Your task to perform on an android device: empty trash in google photos Image 0: 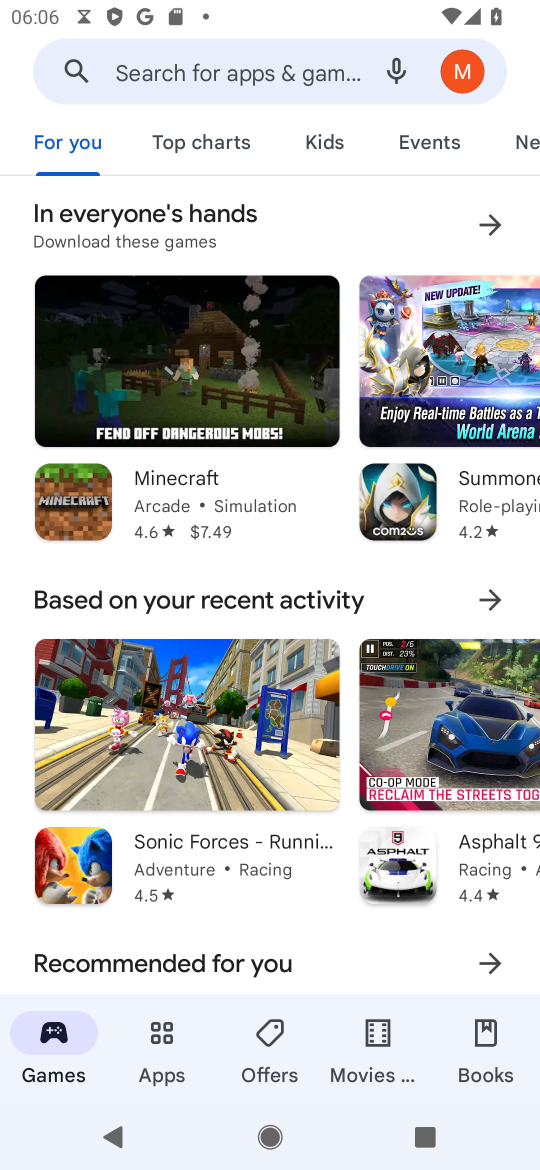
Step 0: press home button
Your task to perform on an android device: empty trash in google photos Image 1: 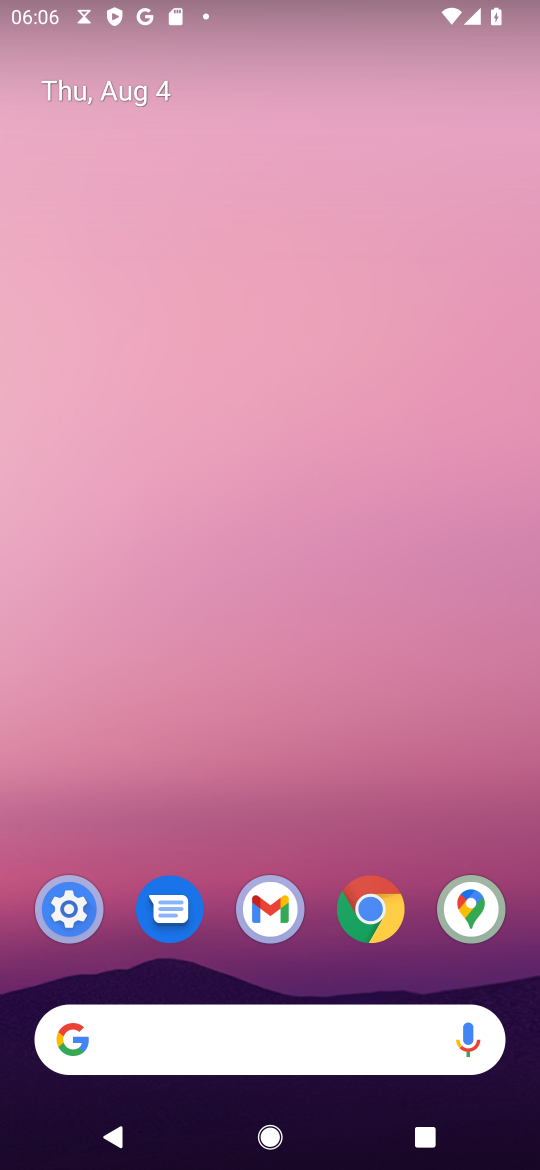
Step 1: drag from (369, 1029) to (458, 161)
Your task to perform on an android device: empty trash in google photos Image 2: 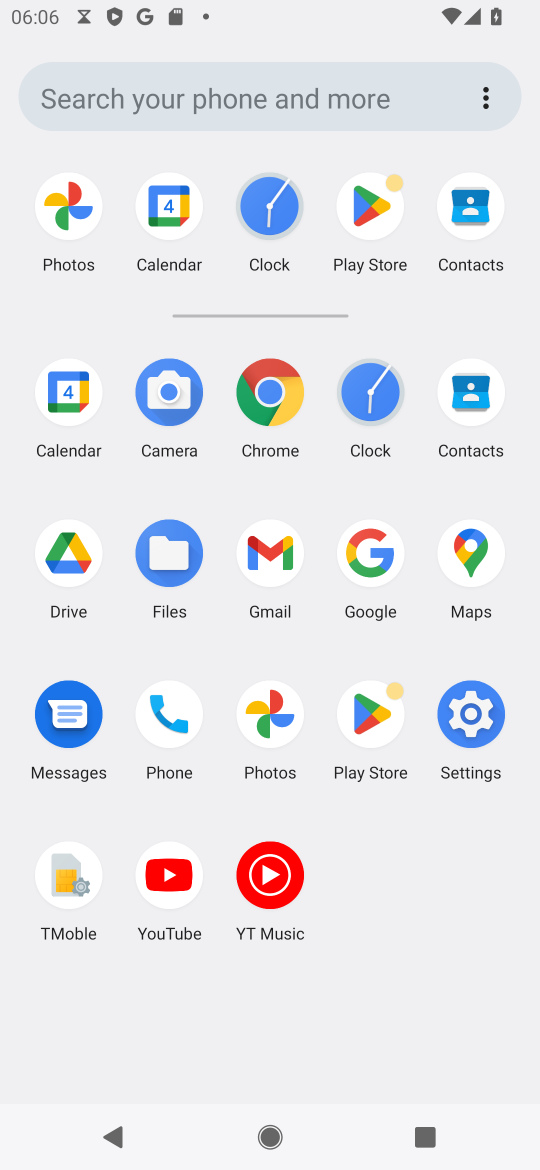
Step 2: click (268, 730)
Your task to perform on an android device: empty trash in google photos Image 3: 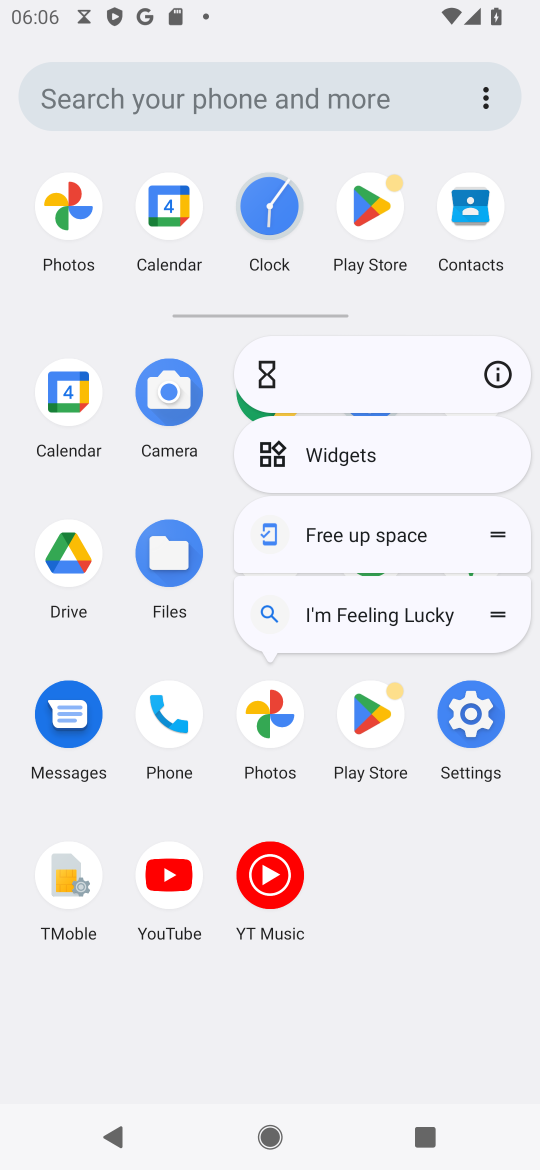
Step 3: click (273, 707)
Your task to perform on an android device: empty trash in google photos Image 4: 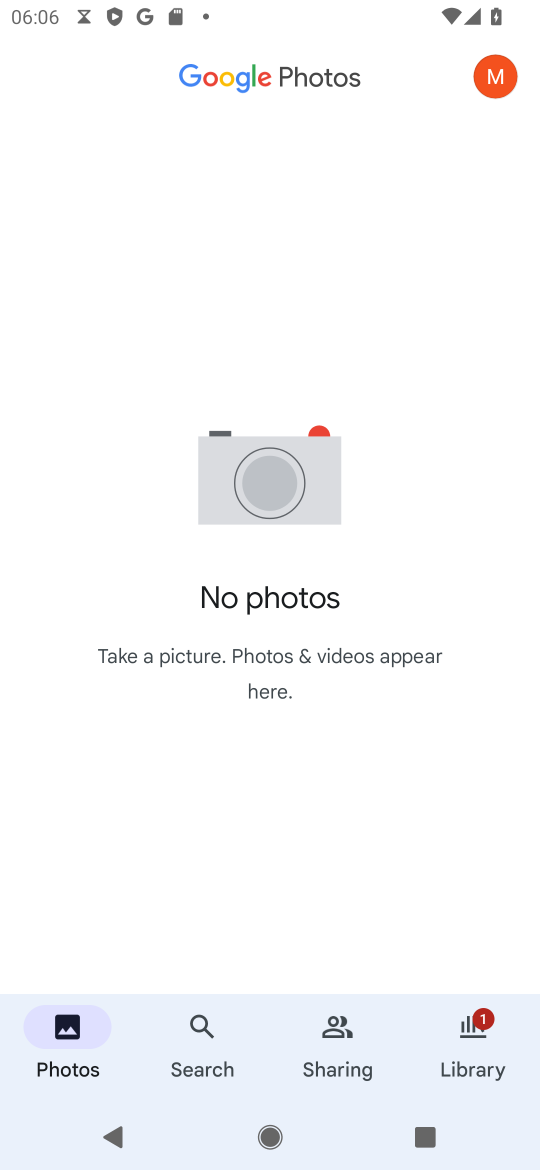
Step 4: click (461, 1049)
Your task to perform on an android device: empty trash in google photos Image 5: 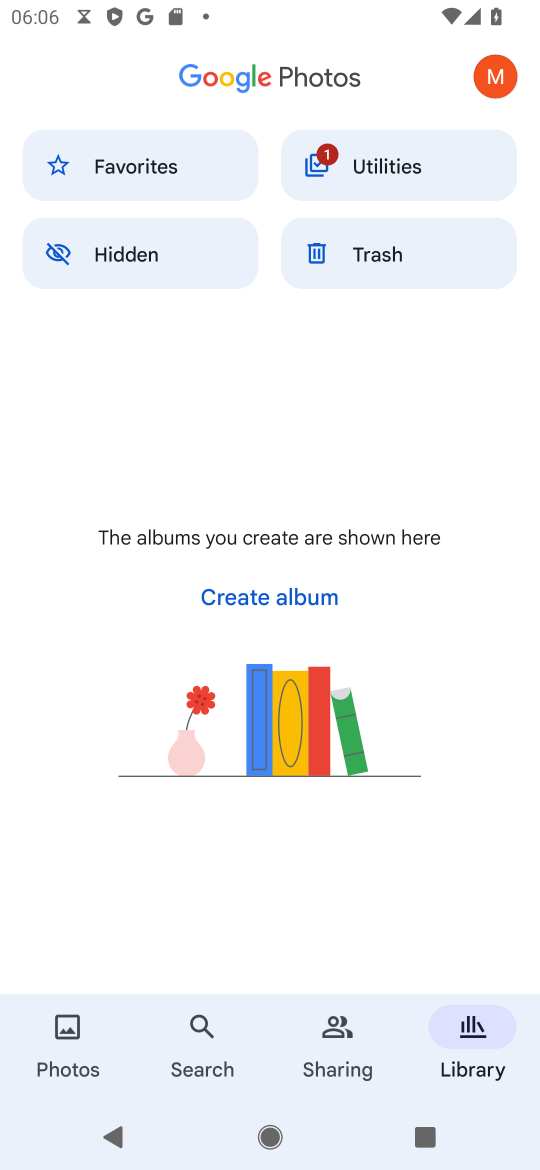
Step 5: click (387, 244)
Your task to perform on an android device: empty trash in google photos Image 6: 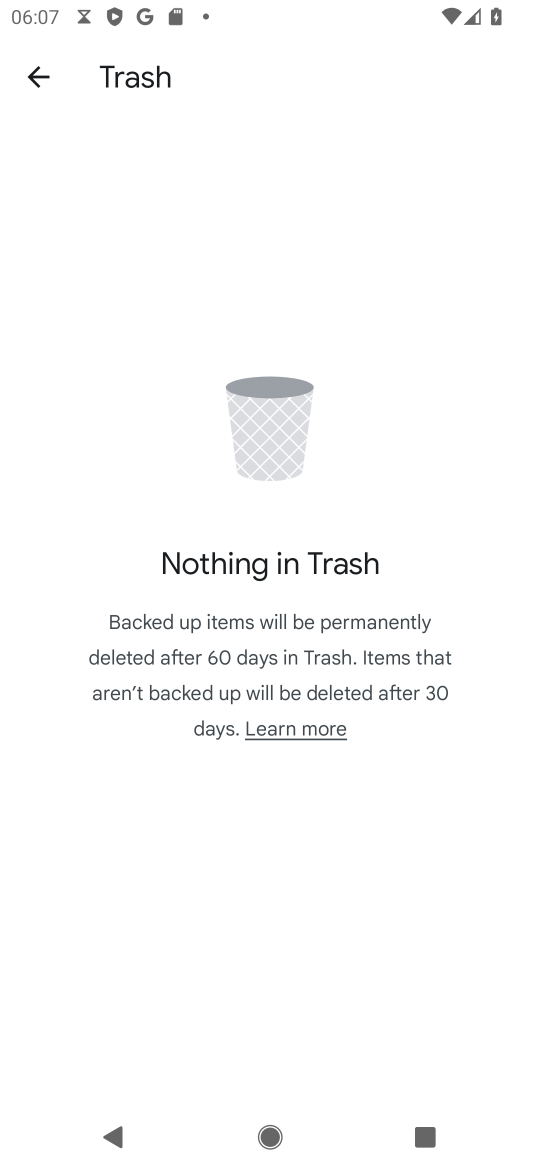
Step 6: task complete